Your task to perform on an android device: change timer sound Image 0: 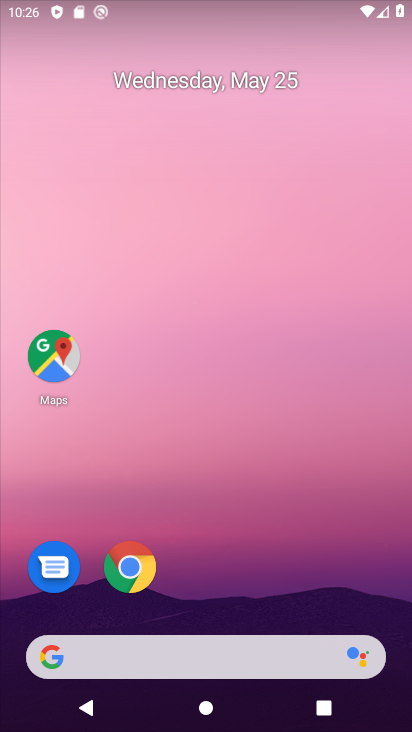
Step 0: drag from (267, 623) to (224, 137)
Your task to perform on an android device: change timer sound Image 1: 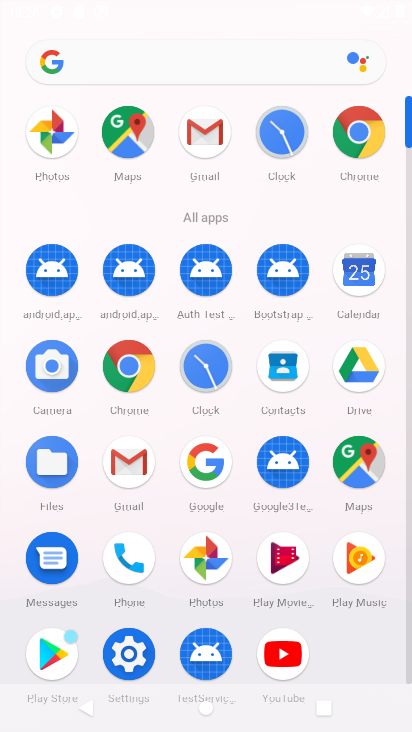
Step 1: click (198, 379)
Your task to perform on an android device: change timer sound Image 2: 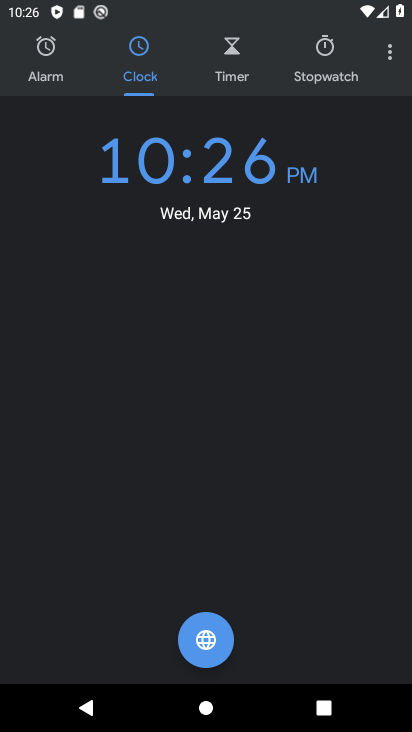
Step 2: click (392, 47)
Your task to perform on an android device: change timer sound Image 3: 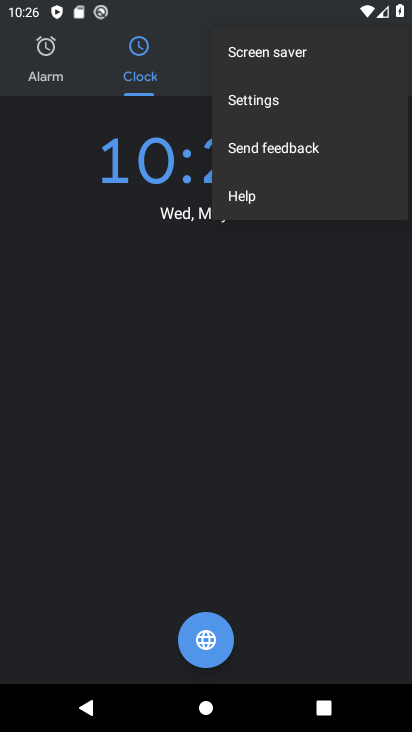
Step 3: click (276, 101)
Your task to perform on an android device: change timer sound Image 4: 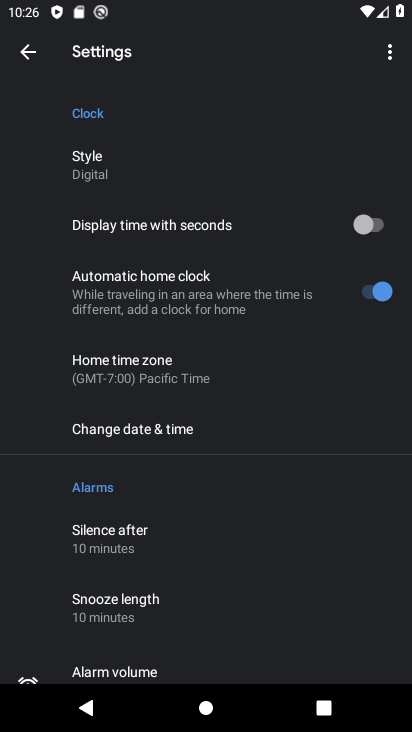
Step 4: drag from (145, 531) to (135, 192)
Your task to perform on an android device: change timer sound Image 5: 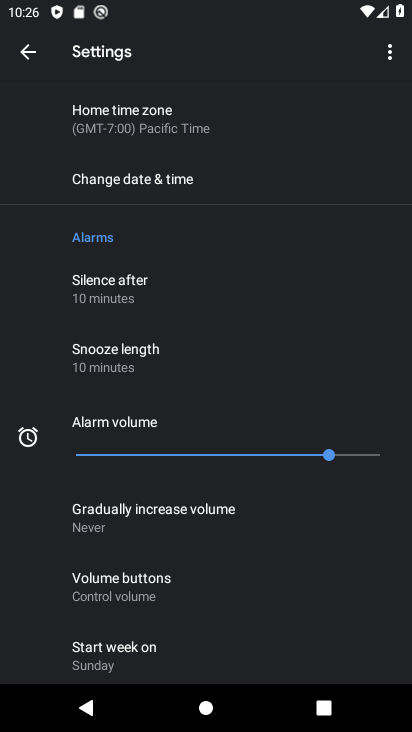
Step 5: drag from (102, 643) to (120, 290)
Your task to perform on an android device: change timer sound Image 6: 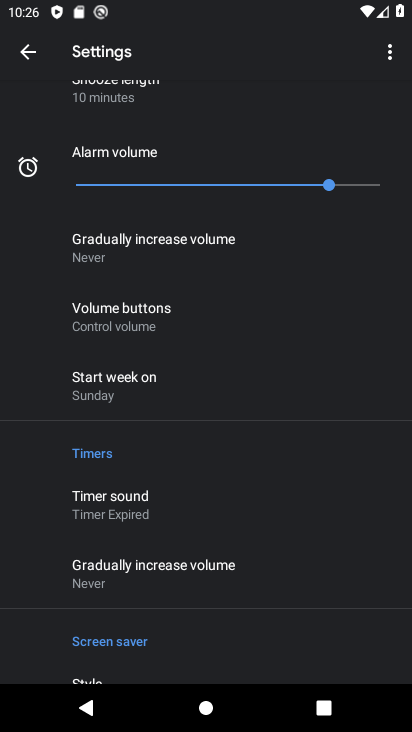
Step 6: click (91, 504)
Your task to perform on an android device: change timer sound Image 7: 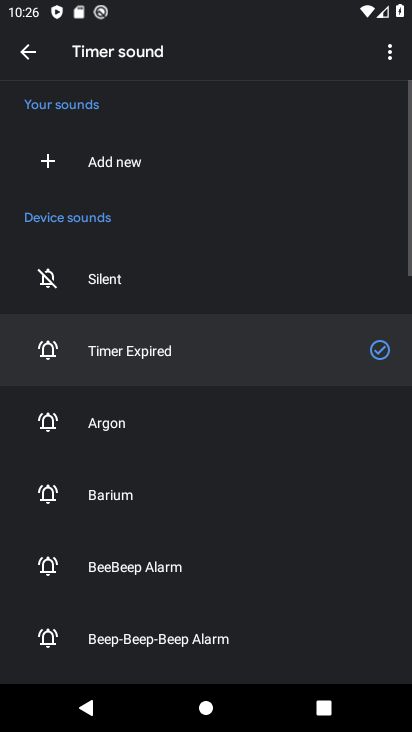
Step 7: click (82, 414)
Your task to perform on an android device: change timer sound Image 8: 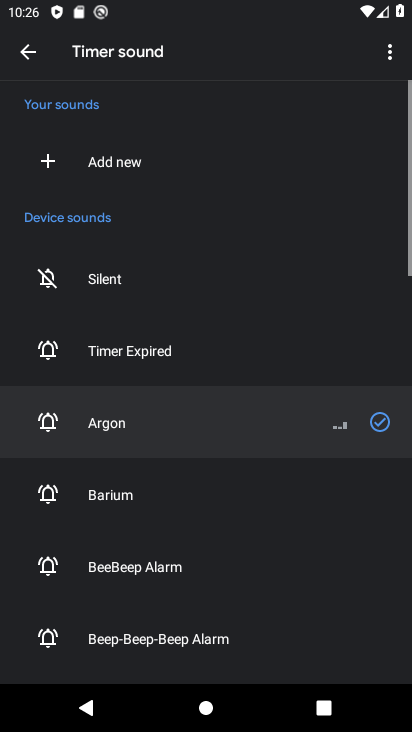
Step 8: task complete